Your task to perform on an android device: make emails show in primary in the gmail app Image 0: 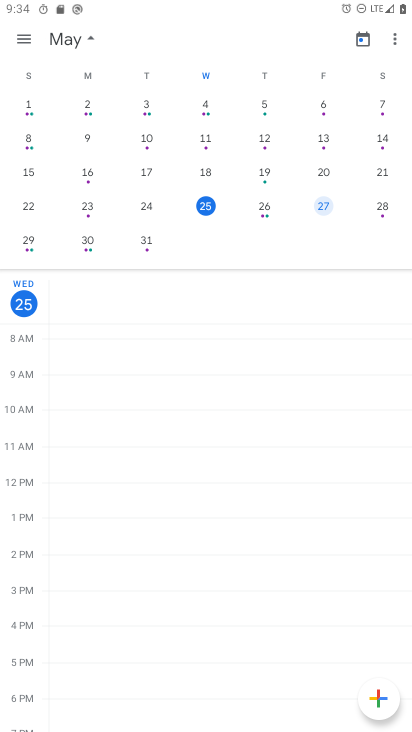
Step 0: press home button
Your task to perform on an android device: make emails show in primary in the gmail app Image 1: 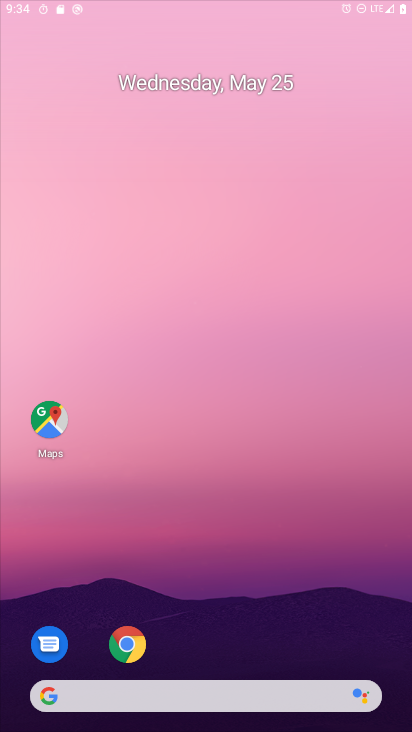
Step 1: drag from (264, 657) to (286, 175)
Your task to perform on an android device: make emails show in primary in the gmail app Image 2: 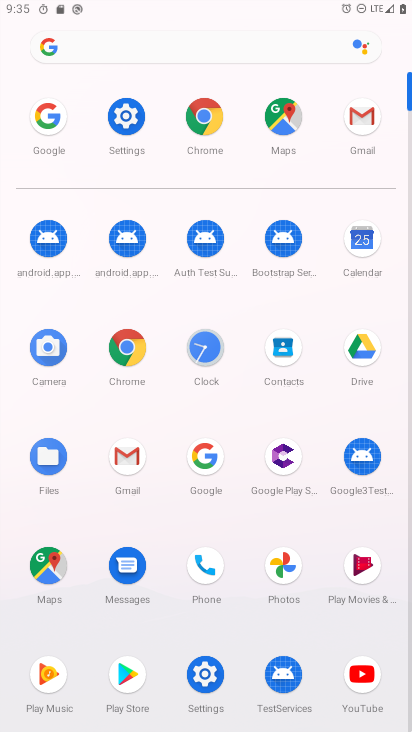
Step 2: click (118, 463)
Your task to perform on an android device: make emails show in primary in the gmail app Image 3: 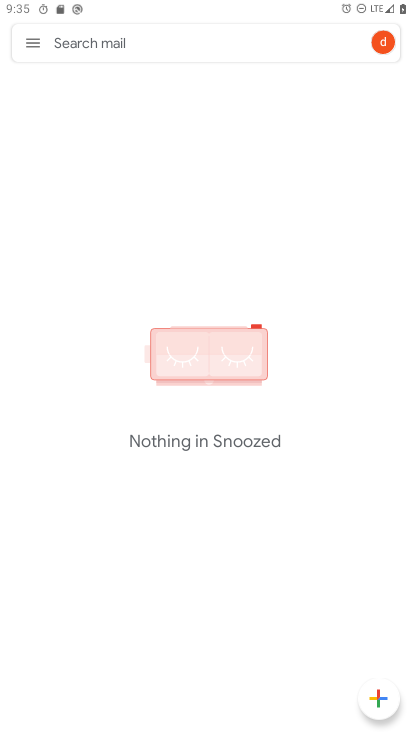
Step 3: task complete